Your task to perform on an android device: change keyboard looks Image 0: 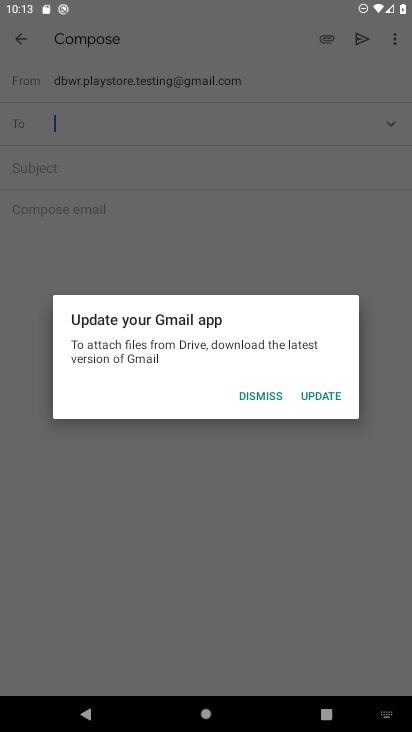
Step 0: press home button
Your task to perform on an android device: change keyboard looks Image 1: 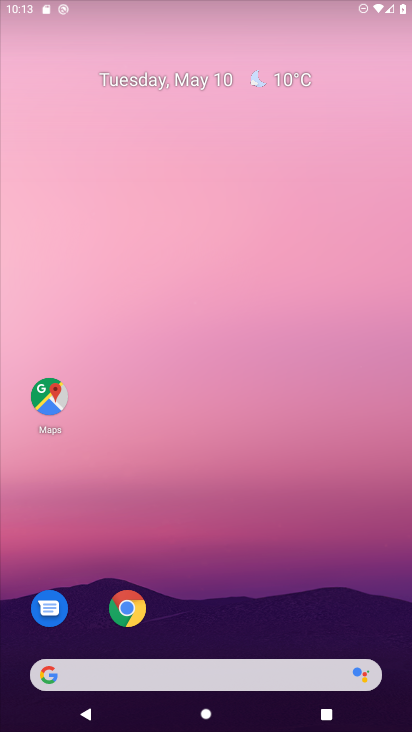
Step 1: drag from (366, 617) to (228, 25)
Your task to perform on an android device: change keyboard looks Image 2: 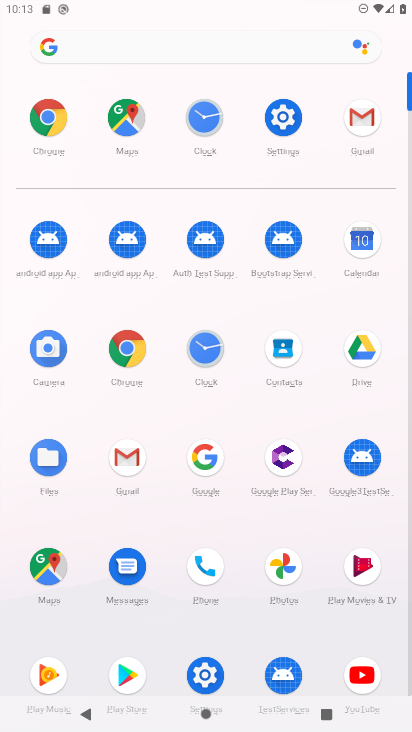
Step 2: click (294, 120)
Your task to perform on an android device: change keyboard looks Image 3: 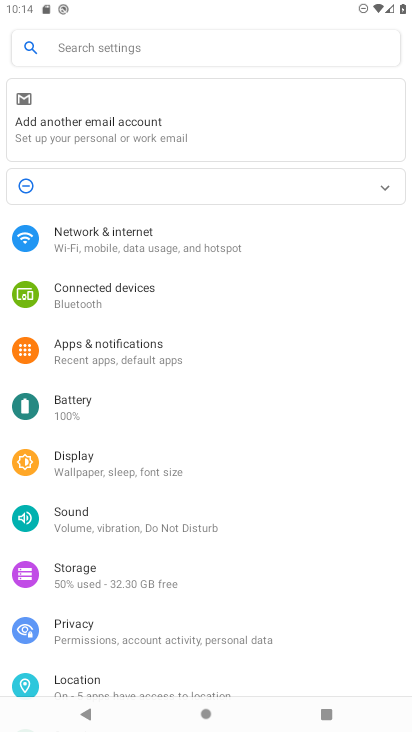
Step 3: drag from (117, 637) to (209, 90)
Your task to perform on an android device: change keyboard looks Image 4: 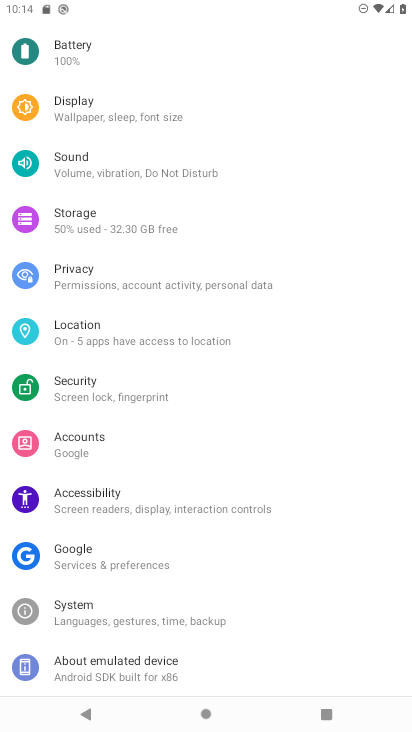
Step 4: click (153, 665)
Your task to perform on an android device: change keyboard looks Image 5: 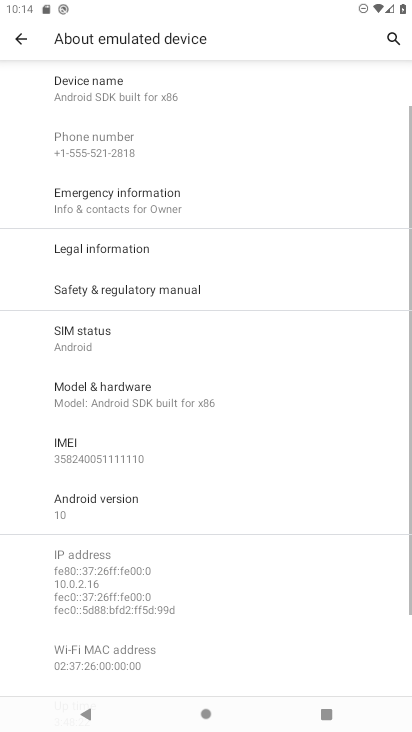
Step 5: press back button
Your task to perform on an android device: change keyboard looks Image 6: 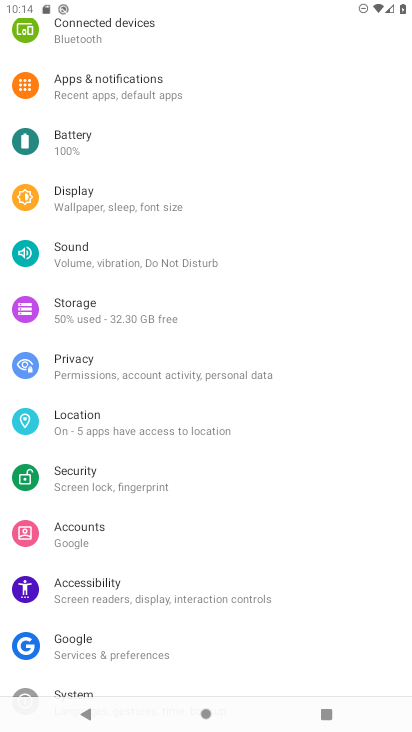
Step 6: click (80, 686)
Your task to perform on an android device: change keyboard looks Image 7: 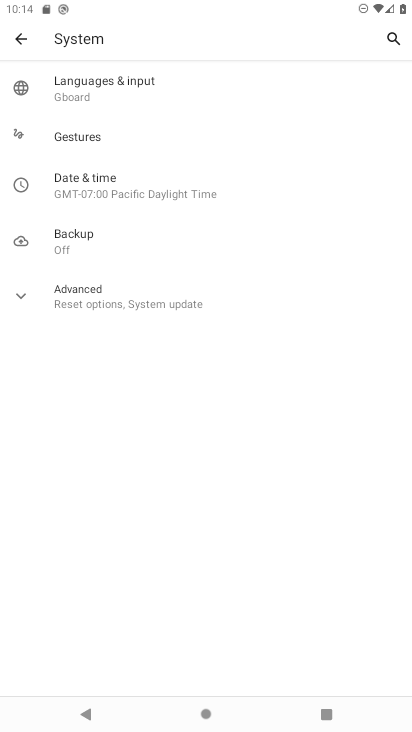
Step 7: click (100, 87)
Your task to perform on an android device: change keyboard looks Image 8: 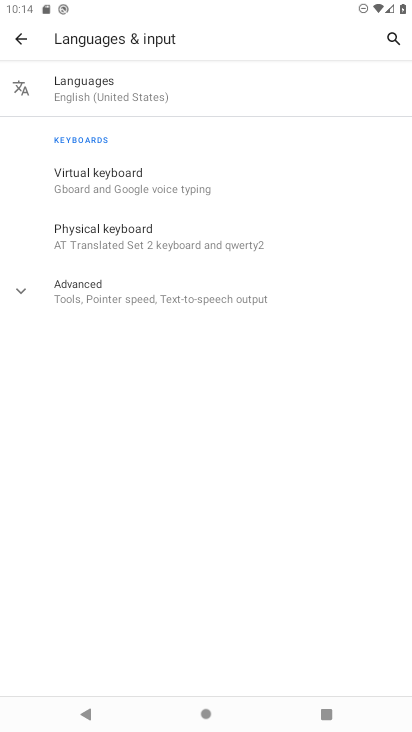
Step 8: click (82, 166)
Your task to perform on an android device: change keyboard looks Image 9: 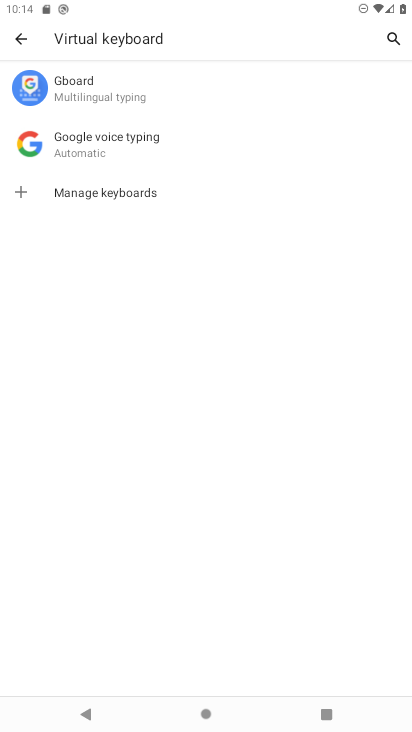
Step 9: click (119, 93)
Your task to perform on an android device: change keyboard looks Image 10: 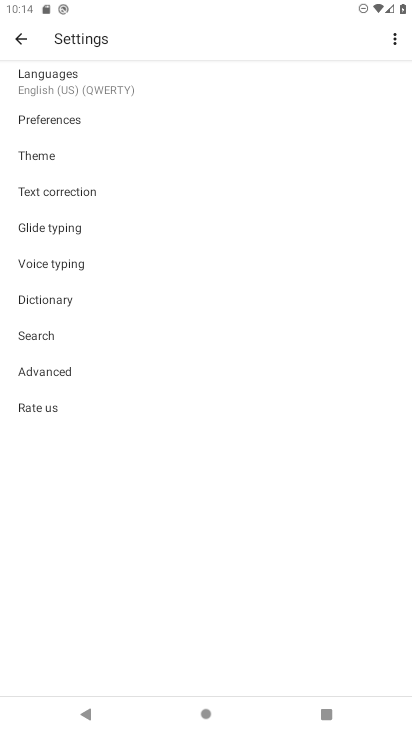
Step 10: click (99, 148)
Your task to perform on an android device: change keyboard looks Image 11: 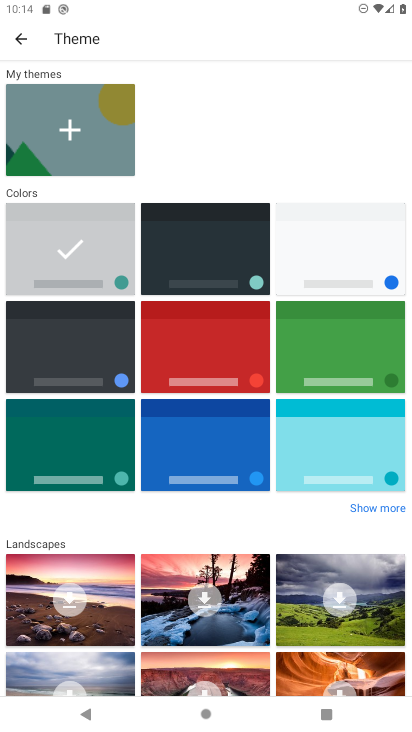
Step 11: click (218, 264)
Your task to perform on an android device: change keyboard looks Image 12: 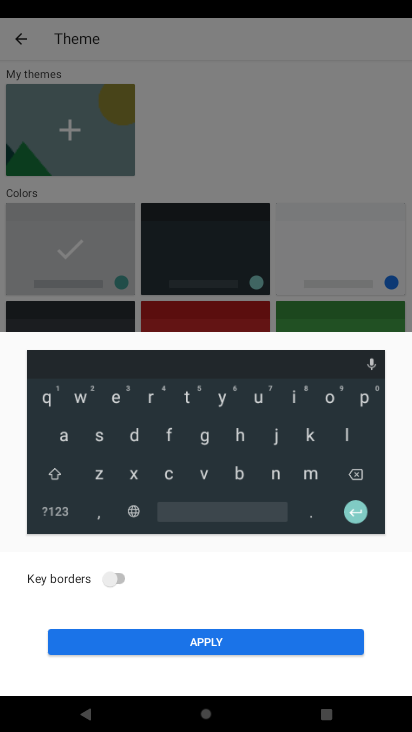
Step 12: click (244, 647)
Your task to perform on an android device: change keyboard looks Image 13: 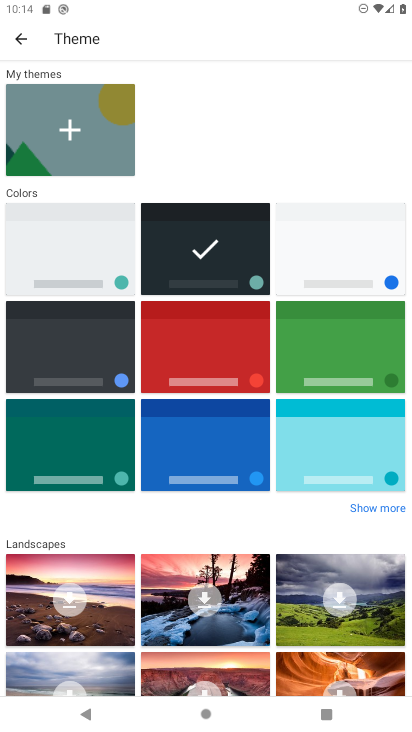
Step 13: task complete